Your task to perform on an android device: toggle show notifications on the lock screen Image 0: 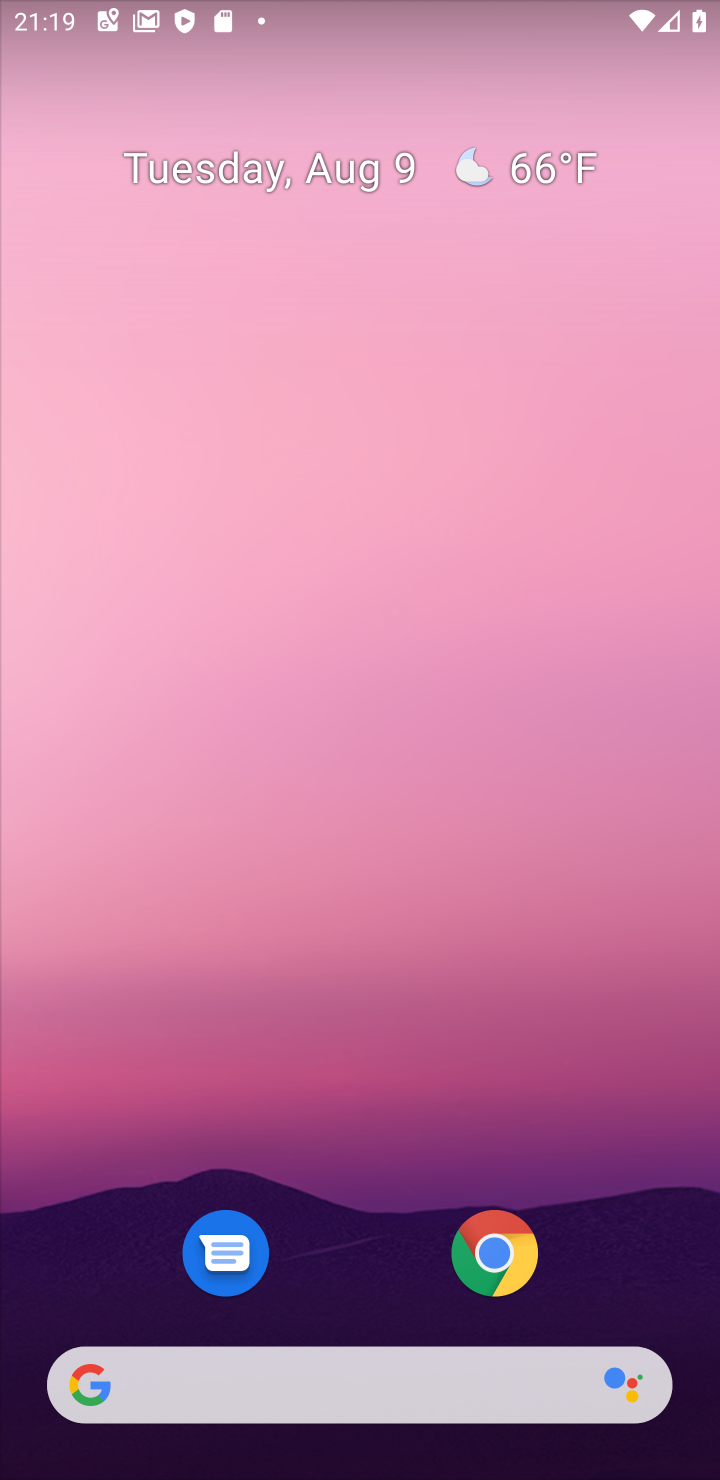
Step 0: drag from (379, 1202) to (337, 197)
Your task to perform on an android device: toggle show notifications on the lock screen Image 1: 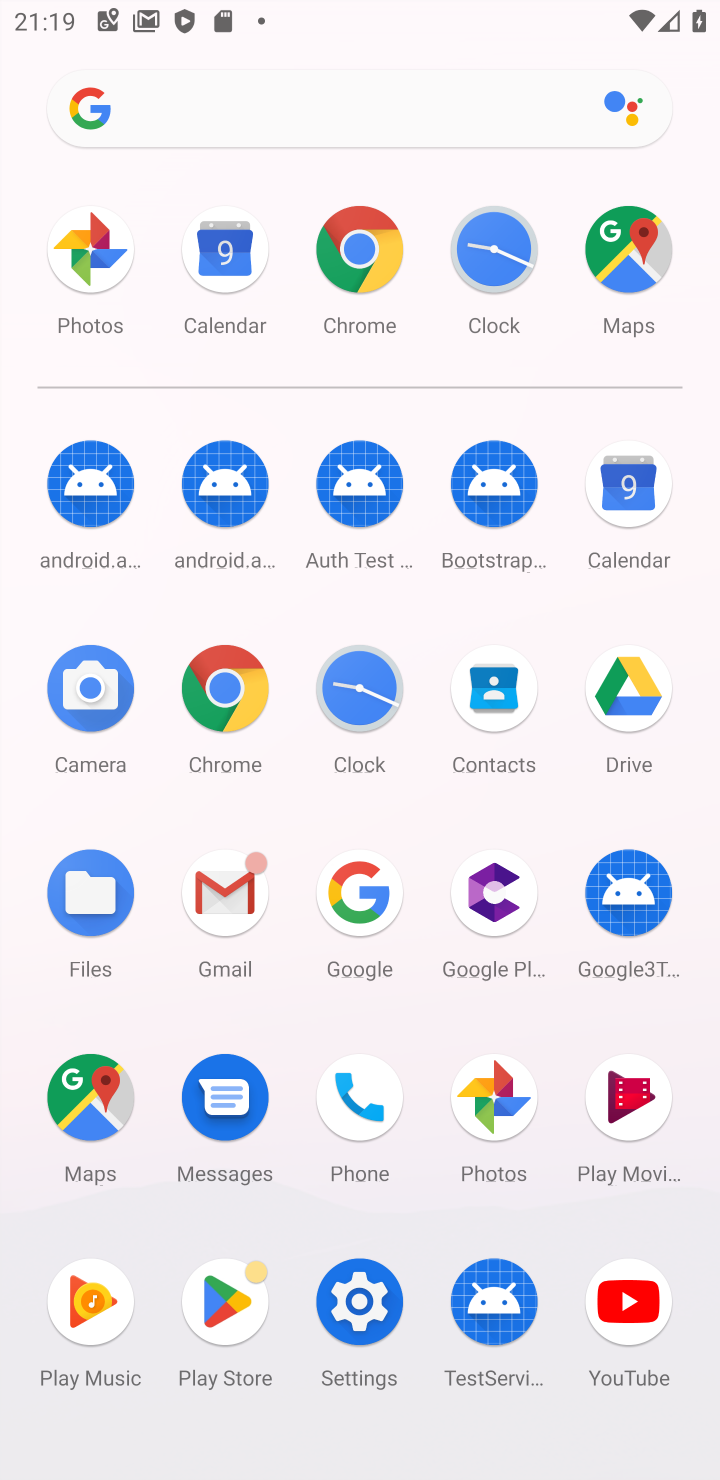
Step 1: click (379, 1309)
Your task to perform on an android device: toggle show notifications on the lock screen Image 2: 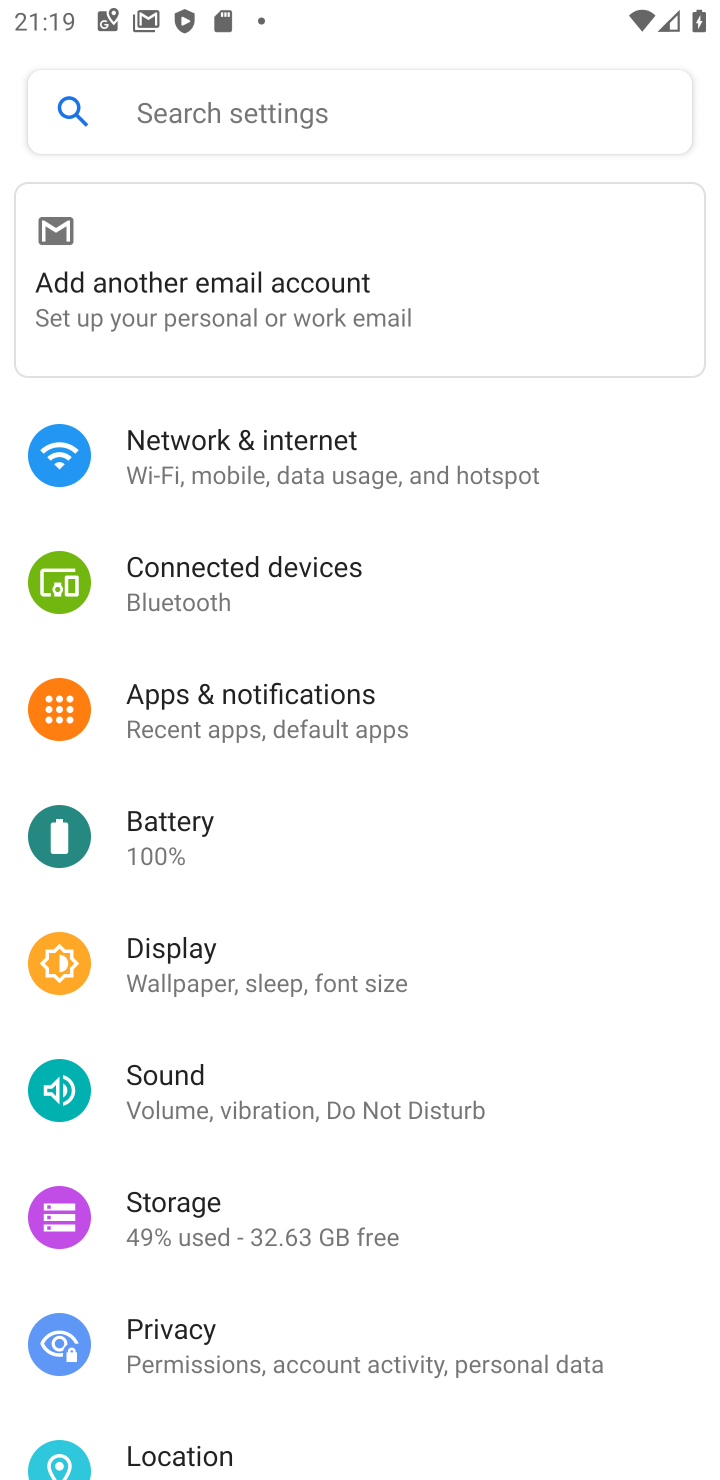
Step 2: click (279, 705)
Your task to perform on an android device: toggle show notifications on the lock screen Image 3: 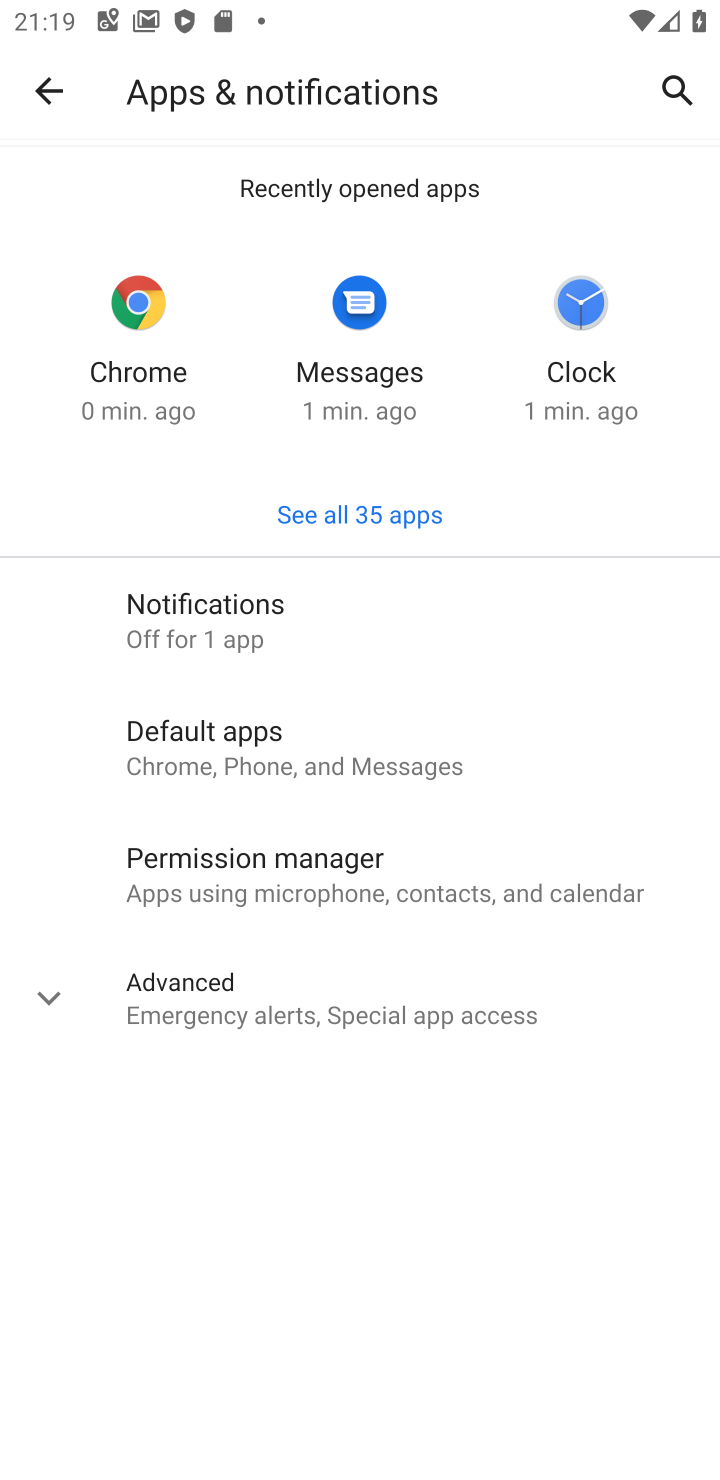
Step 3: click (202, 635)
Your task to perform on an android device: toggle show notifications on the lock screen Image 4: 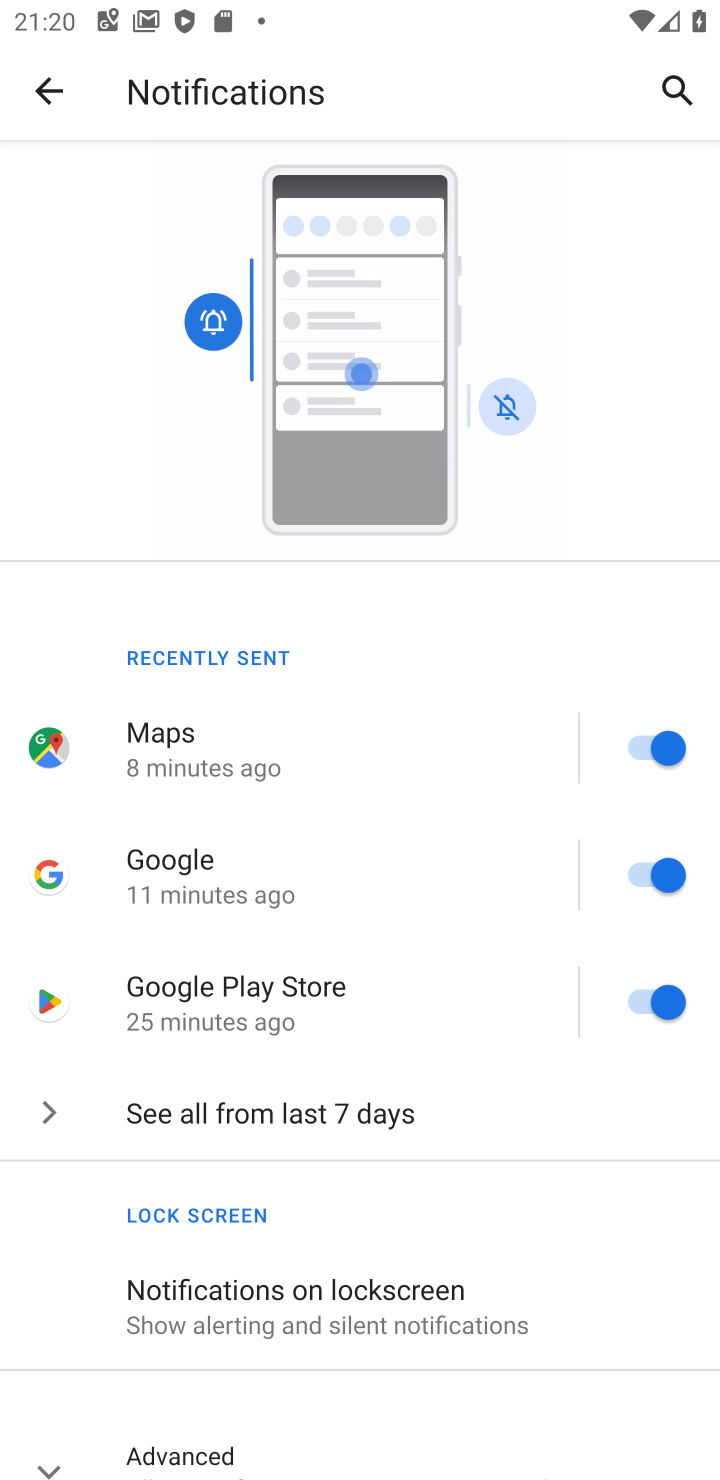
Step 4: click (352, 1298)
Your task to perform on an android device: toggle show notifications on the lock screen Image 5: 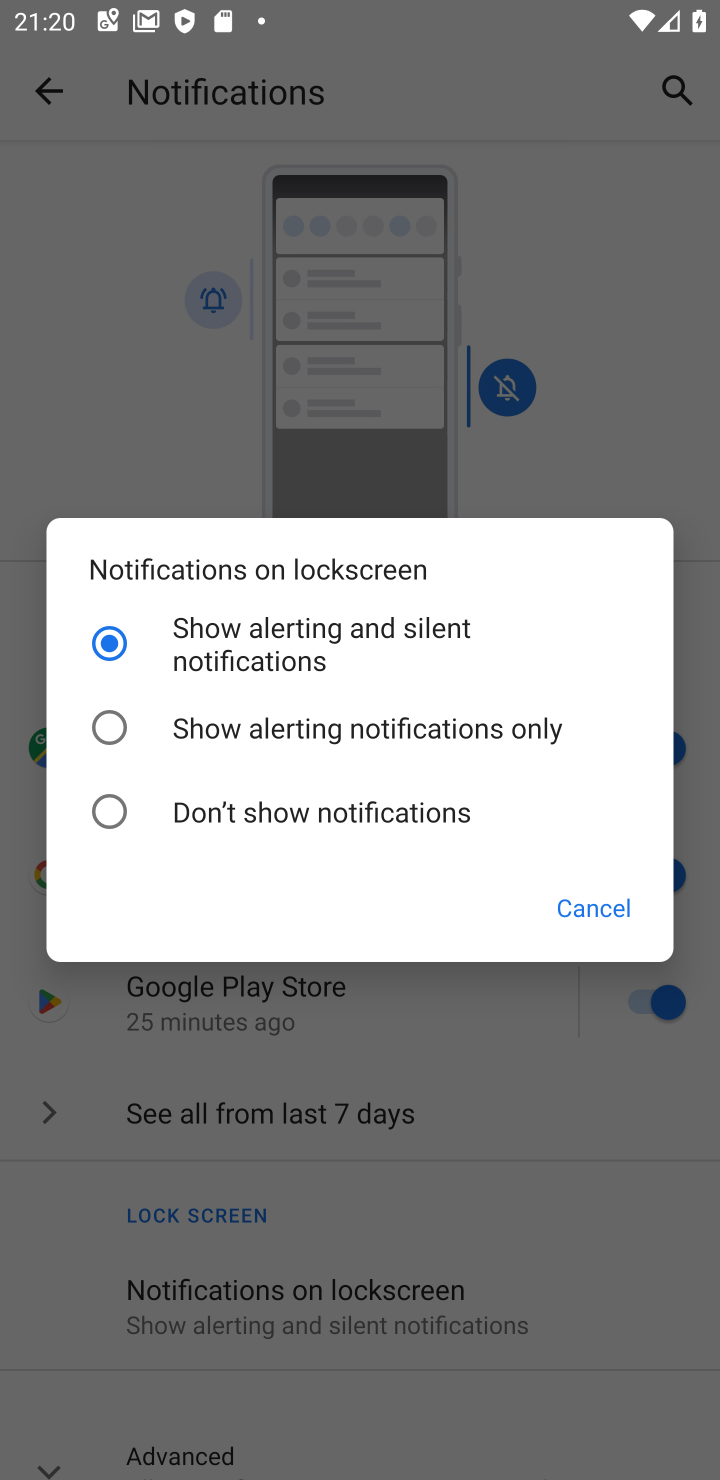
Step 5: click (319, 826)
Your task to perform on an android device: toggle show notifications on the lock screen Image 6: 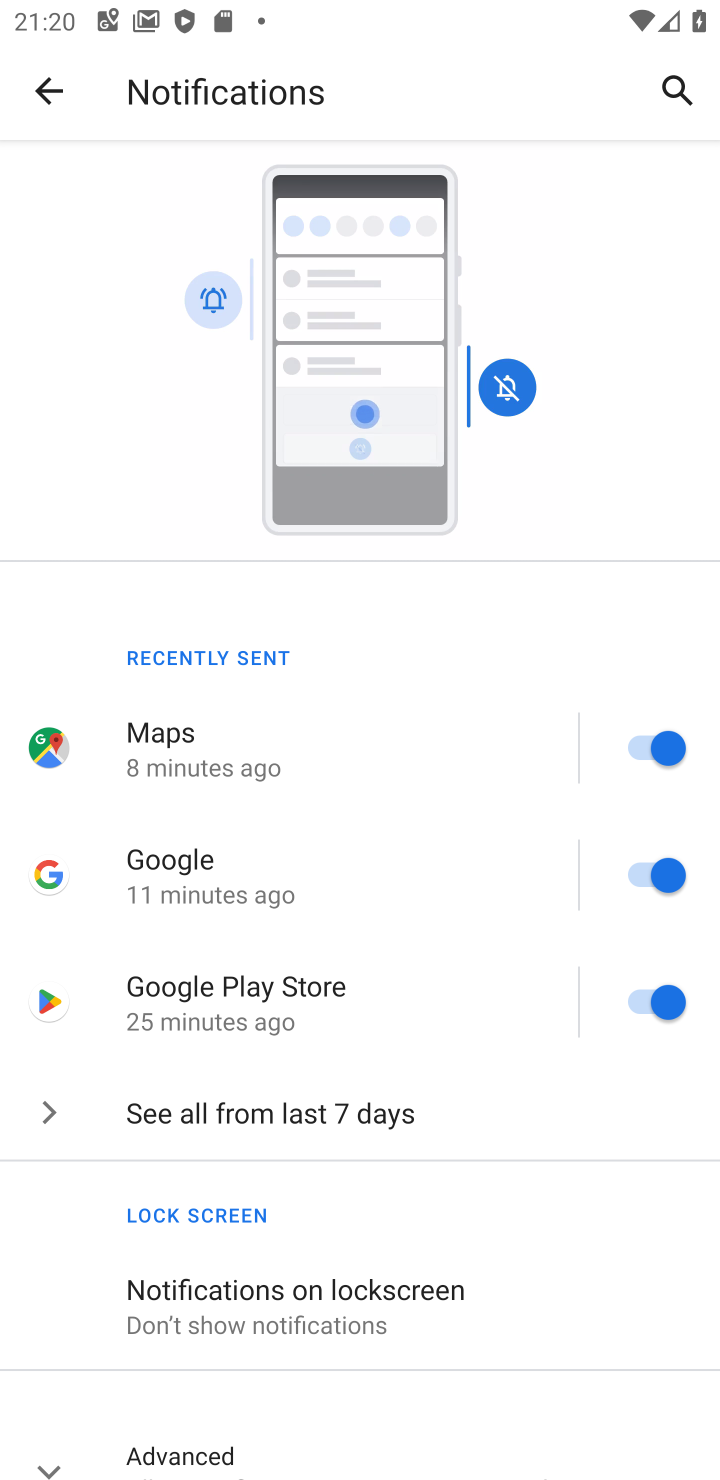
Step 6: task complete